Your task to perform on an android device: Open my contact list Image 0: 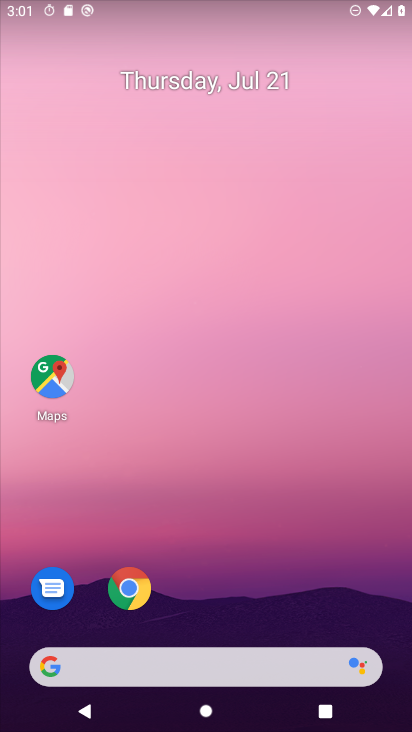
Step 0: drag from (240, 675) to (404, 3)
Your task to perform on an android device: Open my contact list Image 1: 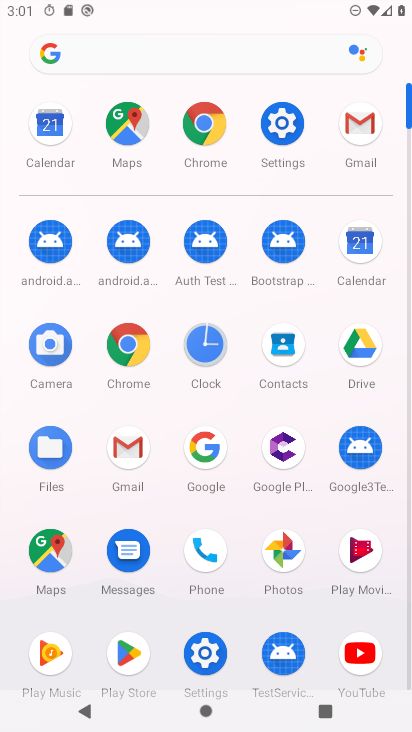
Step 1: click (284, 361)
Your task to perform on an android device: Open my contact list Image 2: 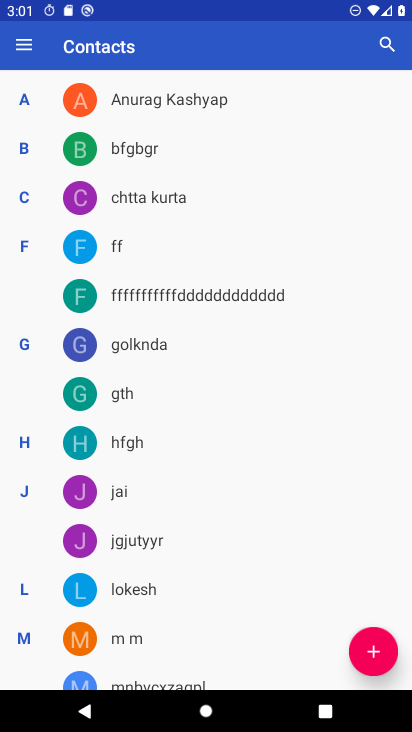
Step 2: task complete